Your task to perform on an android device: Open settings Image 0: 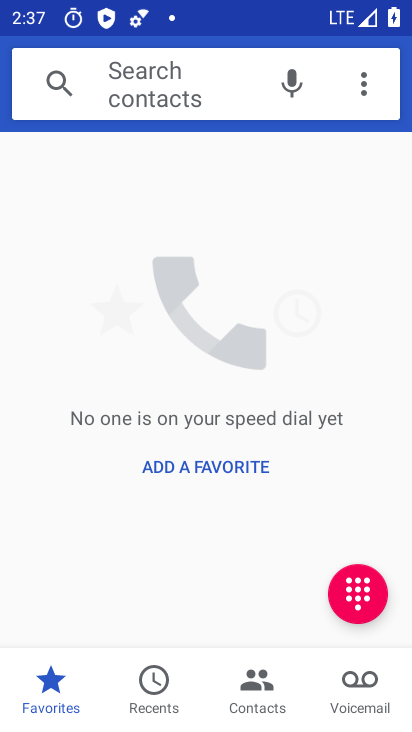
Step 0: drag from (334, 572) to (311, 318)
Your task to perform on an android device: Open settings Image 1: 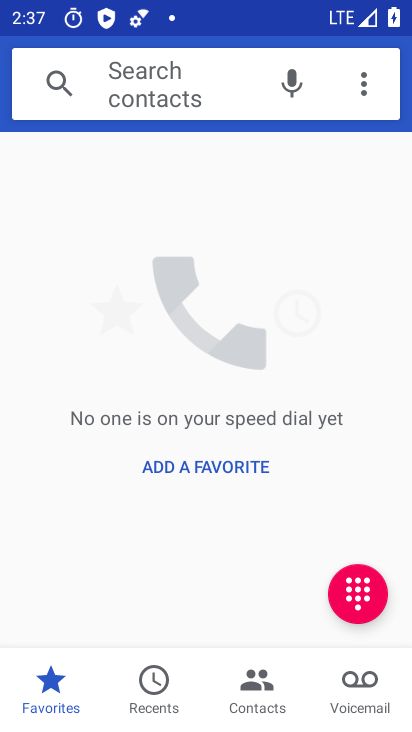
Step 1: press home button
Your task to perform on an android device: Open settings Image 2: 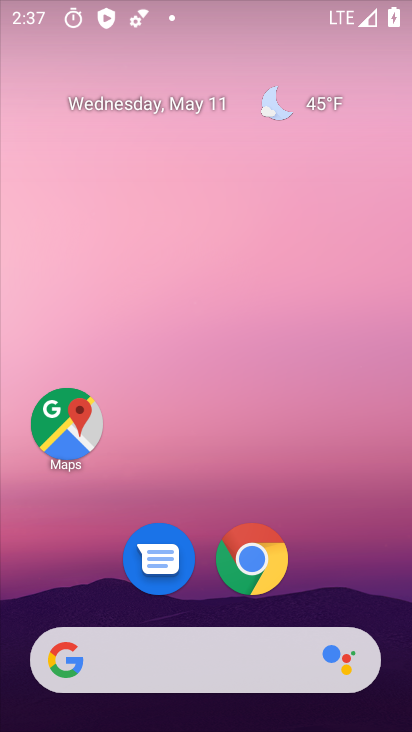
Step 2: drag from (339, 543) to (219, 69)
Your task to perform on an android device: Open settings Image 3: 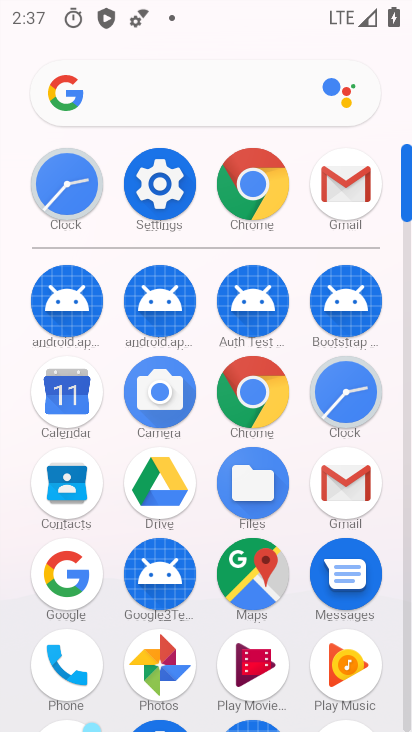
Step 3: click (163, 167)
Your task to perform on an android device: Open settings Image 4: 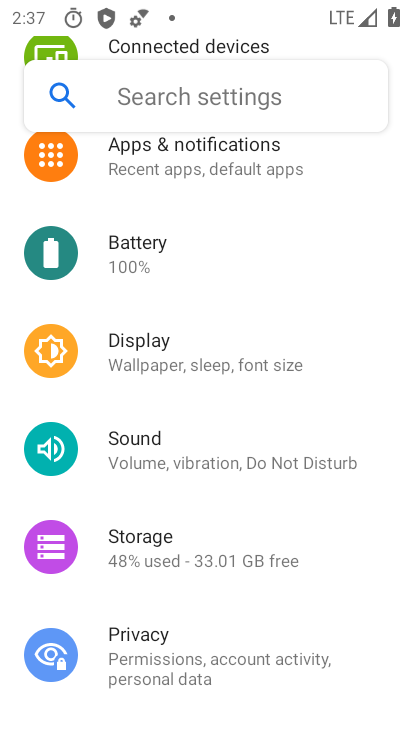
Step 4: task complete